Your task to perform on an android device: turn off notifications in google photos Image 0: 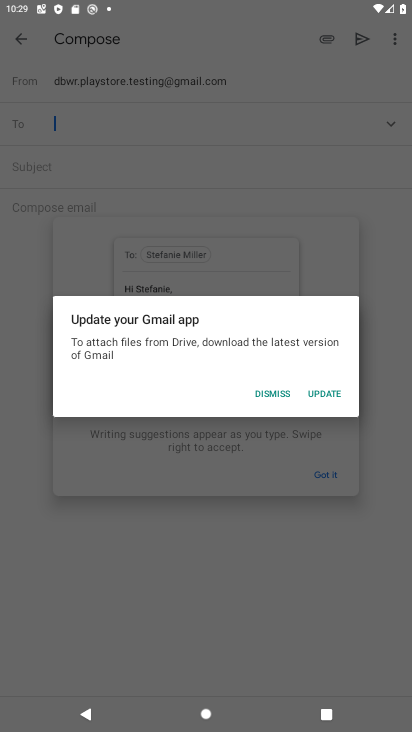
Step 0: press home button
Your task to perform on an android device: turn off notifications in google photos Image 1: 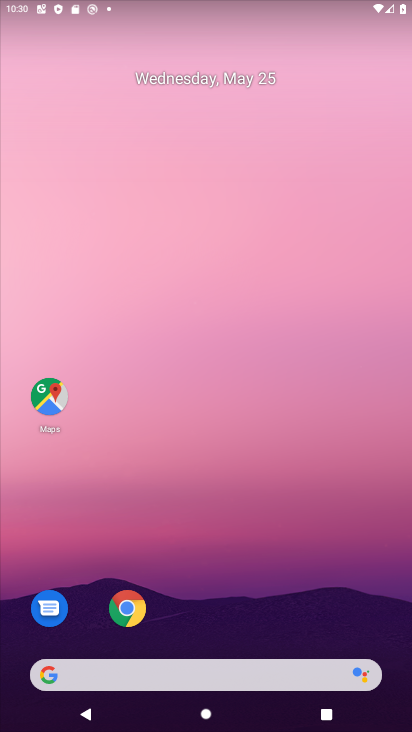
Step 1: drag from (241, 601) to (203, 123)
Your task to perform on an android device: turn off notifications in google photos Image 2: 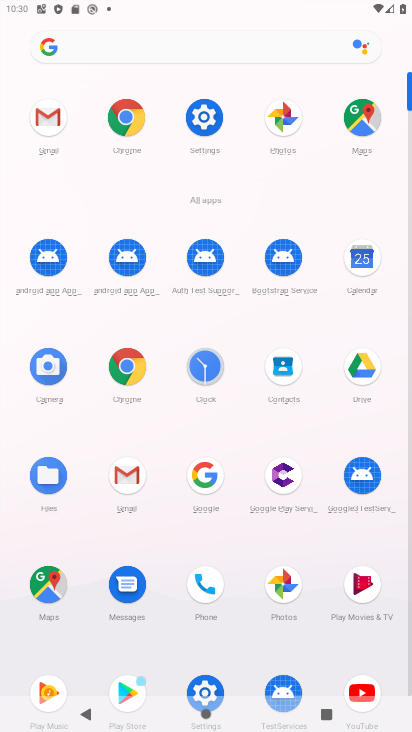
Step 2: click (283, 115)
Your task to perform on an android device: turn off notifications in google photos Image 3: 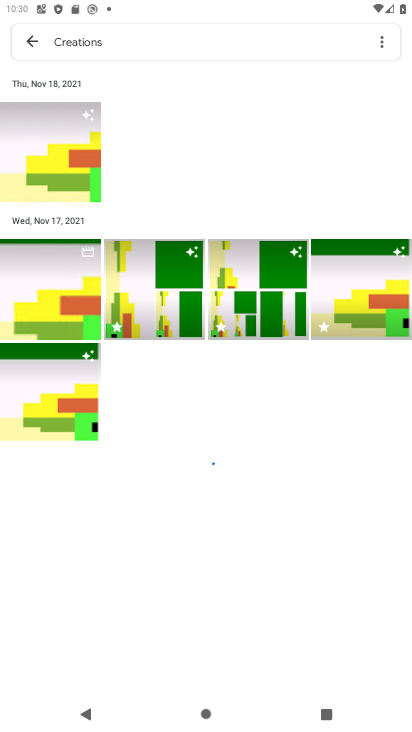
Step 3: click (31, 44)
Your task to perform on an android device: turn off notifications in google photos Image 4: 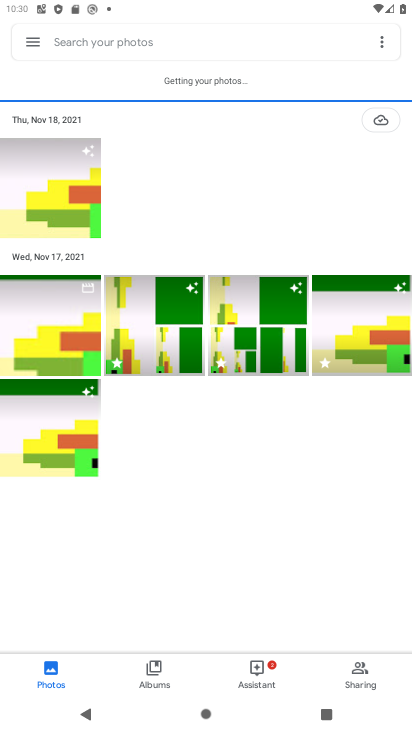
Step 4: click (31, 44)
Your task to perform on an android device: turn off notifications in google photos Image 5: 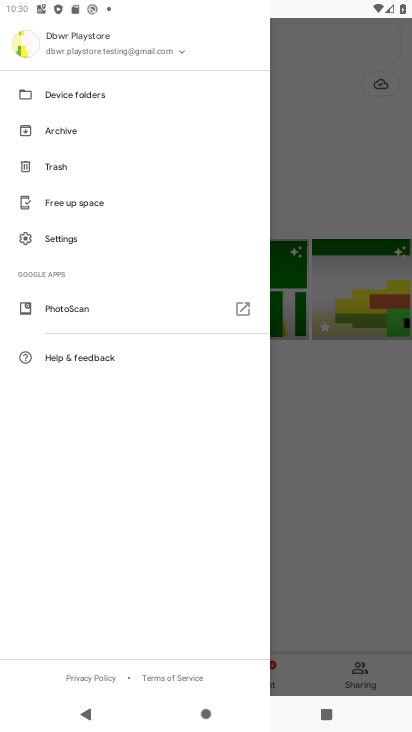
Step 5: click (57, 237)
Your task to perform on an android device: turn off notifications in google photos Image 6: 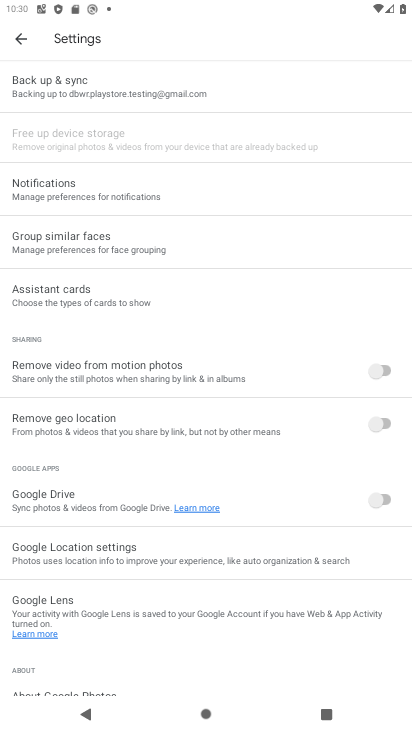
Step 6: click (68, 194)
Your task to perform on an android device: turn off notifications in google photos Image 7: 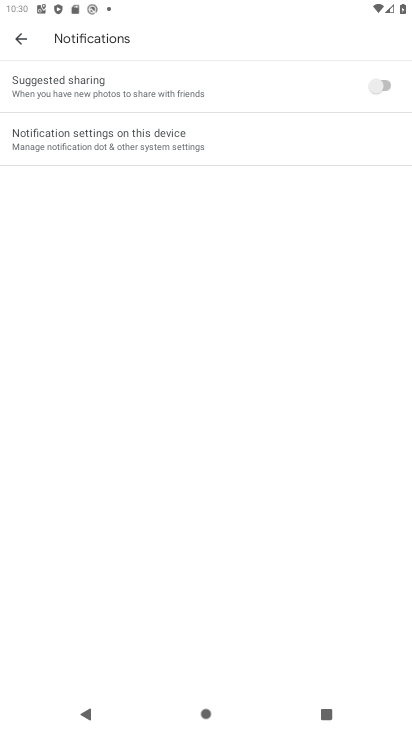
Step 7: click (85, 140)
Your task to perform on an android device: turn off notifications in google photos Image 8: 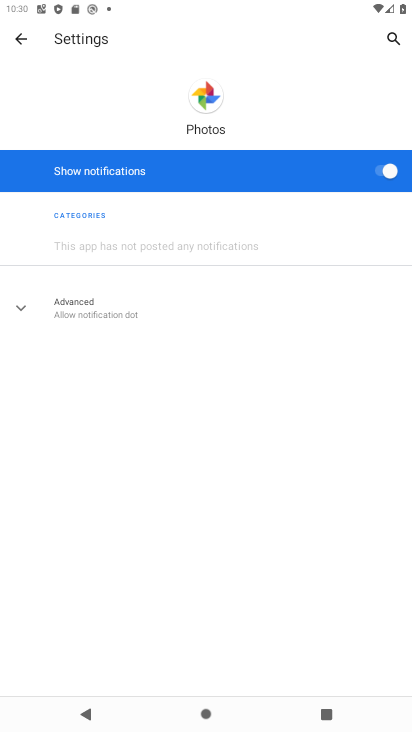
Step 8: click (381, 171)
Your task to perform on an android device: turn off notifications in google photos Image 9: 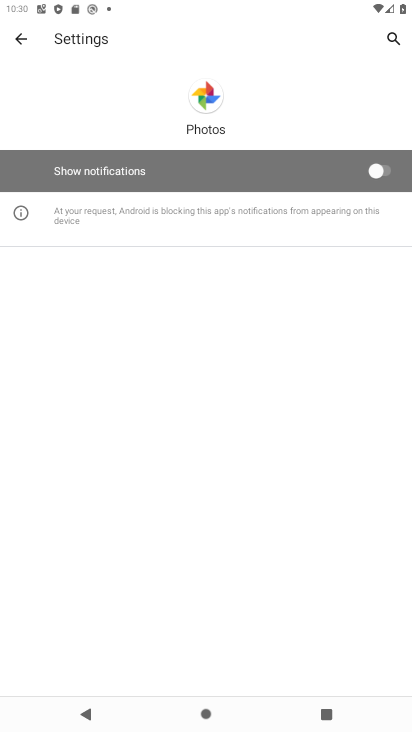
Step 9: task complete